Your task to perform on an android device: toggle priority inbox in the gmail app Image 0: 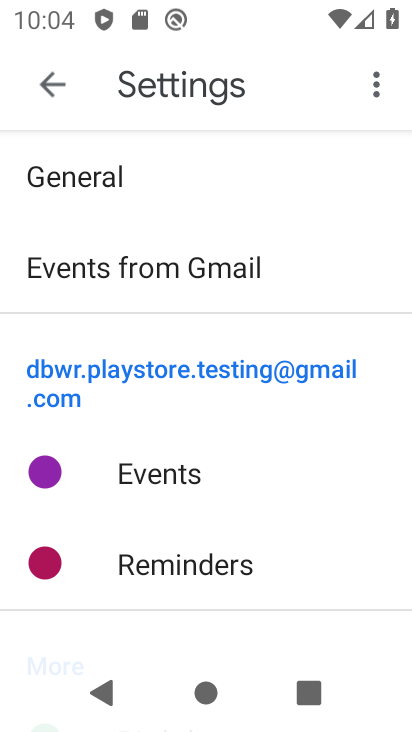
Step 0: press back button
Your task to perform on an android device: toggle priority inbox in the gmail app Image 1: 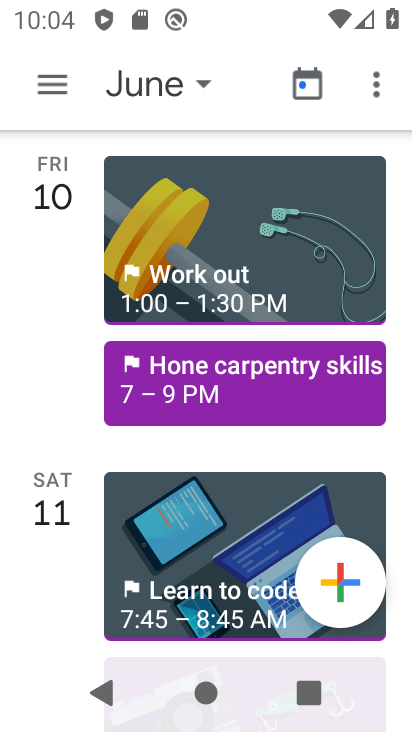
Step 1: press back button
Your task to perform on an android device: toggle priority inbox in the gmail app Image 2: 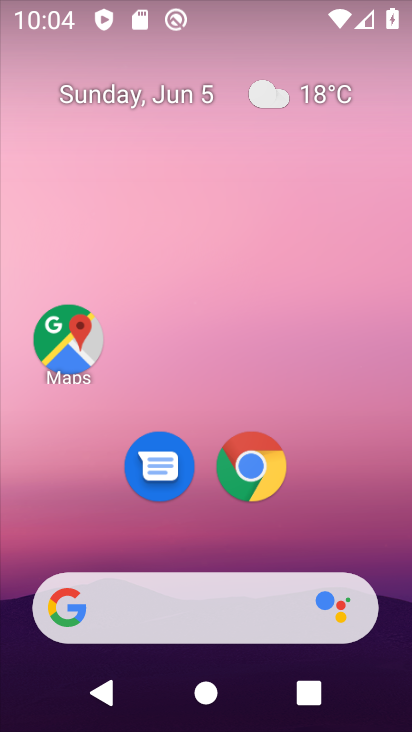
Step 2: drag from (337, 491) to (257, 34)
Your task to perform on an android device: toggle priority inbox in the gmail app Image 3: 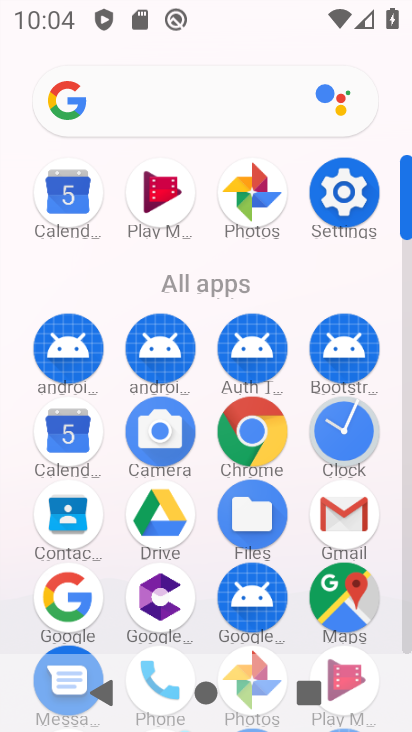
Step 3: drag from (302, 292) to (274, 92)
Your task to perform on an android device: toggle priority inbox in the gmail app Image 4: 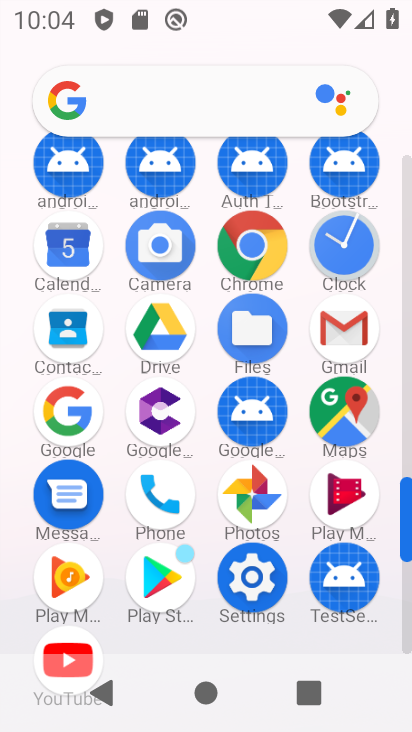
Step 4: click (344, 330)
Your task to perform on an android device: toggle priority inbox in the gmail app Image 5: 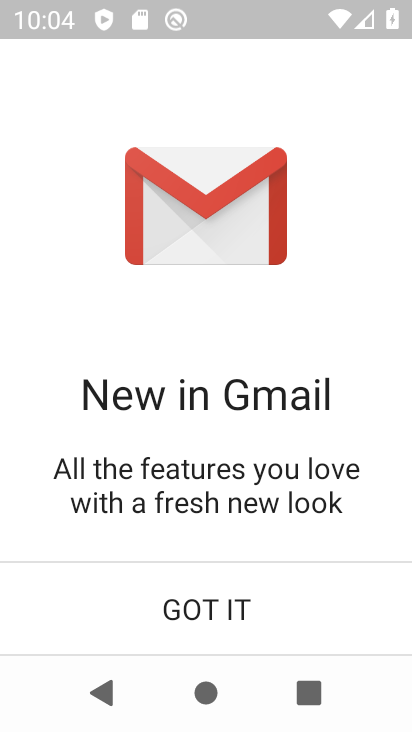
Step 5: click (218, 608)
Your task to perform on an android device: toggle priority inbox in the gmail app Image 6: 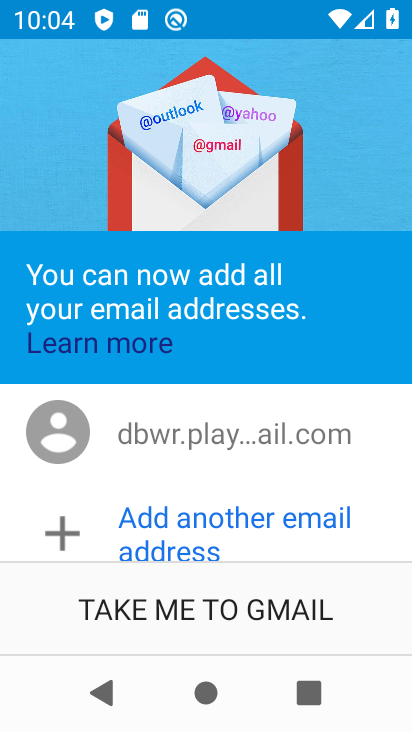
Step 6: click (218, 608)
Your task to perform on an android device: toggle priority inbox in the gmail app Image 7: 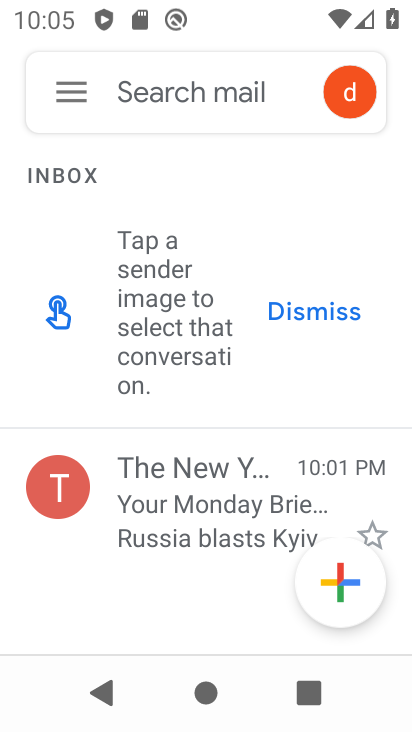
Step 7: click (66, 100)
Your task to perform on an android device: toggle priority inbox in the gmail app Image 8: 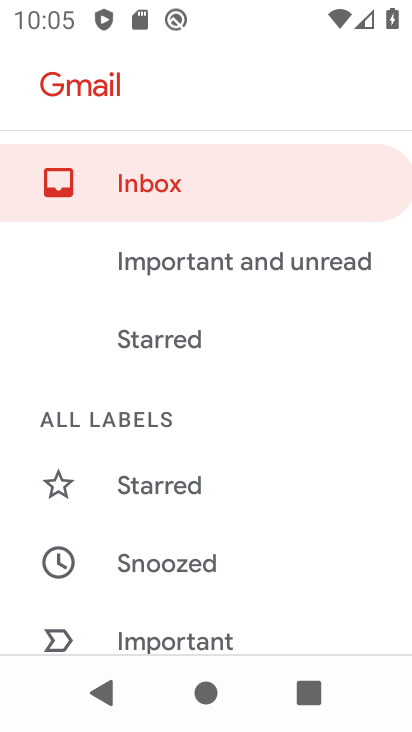
Step 8: drag from (197, 388) to (233, 299)
Your task to perform on an android device: toggle priority inbox in the gmail app Image 9: 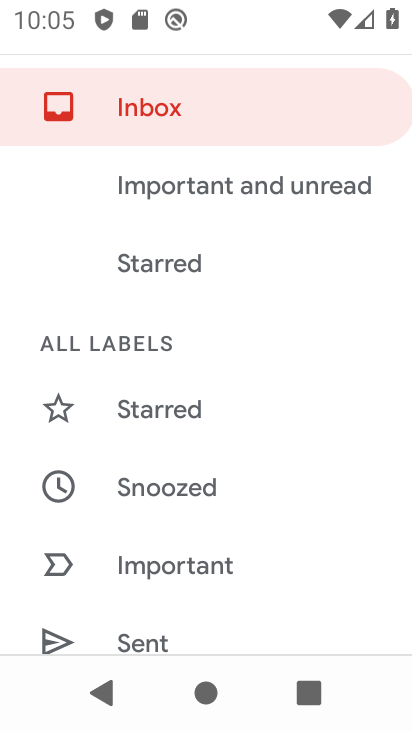
Step 9: drag from (227, 458) to (261, 349)
Your task to perform on an android device: toggle priority inbox in the gmail app Image 10: 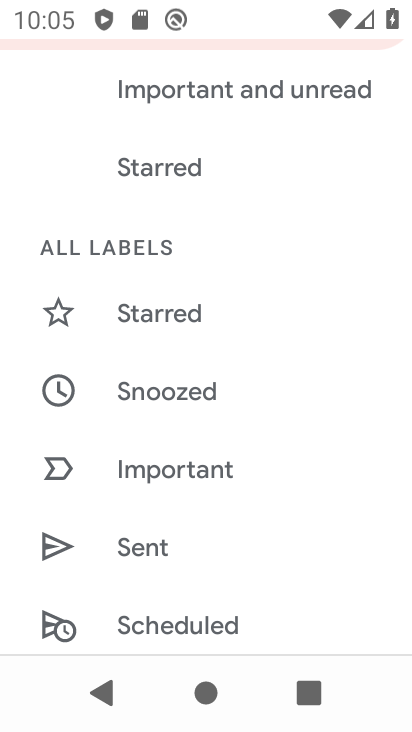
Step 10: drag from (215, 546) to (222, 423)
Your task to perform on an android device: toggle priority inbox in the gmail app Image 11: 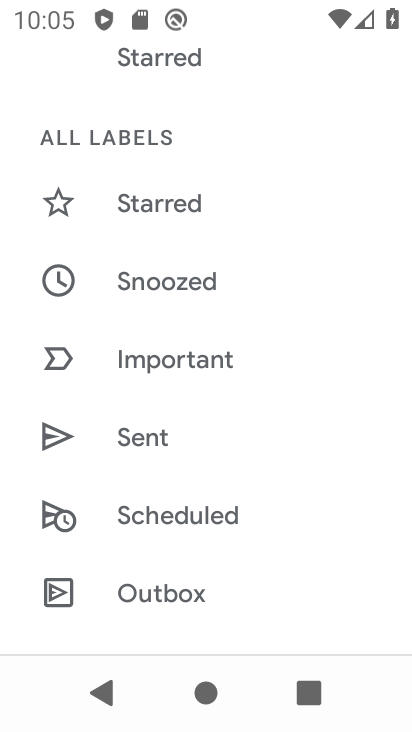
Step 11: drag from (198, 486) to (235, 357)
Your task to perform on an android device: toggle priority inbox in the gmail app Image 12: 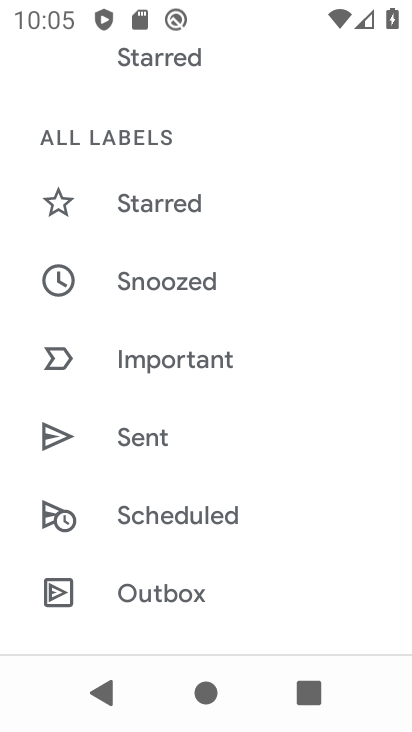
Step 12: drag from (185, 482) to (258, 333)
Your task to perform on an android device: toggle priority inbox in the gmail app Image 13: 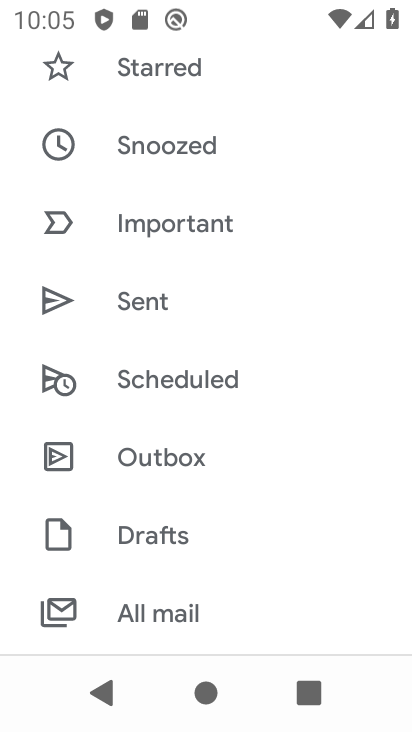
Step 13: drag from (177, 498) to (249, 390)
Your task to perform on an android device: toggle priority inbox in the gmail app Image 14: 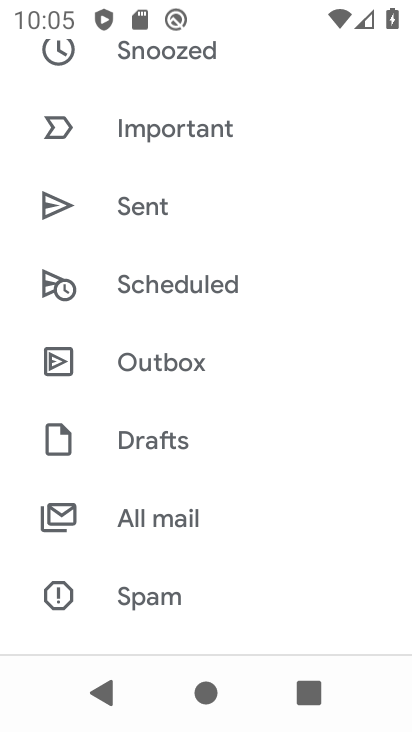
Step 14: drag from (165, 560) to (296, 372)
Your task to perform on an android device: toggle priority inbox in the gmail app Image 15: 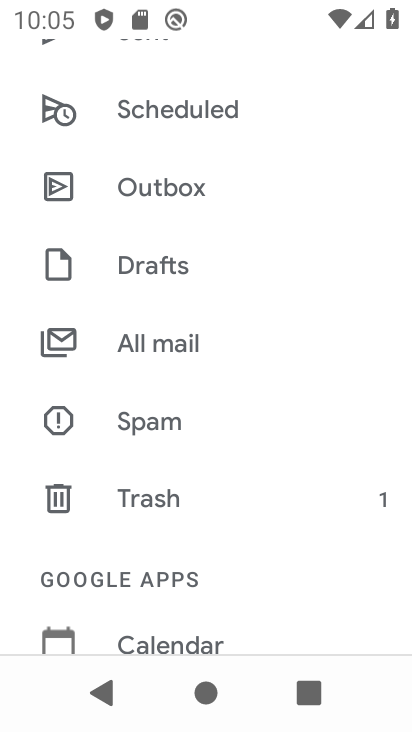
Step 15: drag from (157, 542) to (255, 435)
Your task to perform on an android device: toggle priority inbox in the gmail app Image 16: 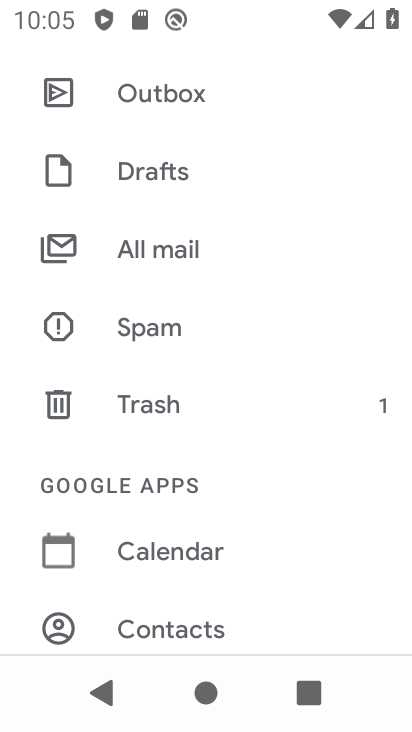
Step 16: drag from (152, 593) to (255, 474)
Your task to perform on an android device: toggle priority inbox in the gmail app Image 17: 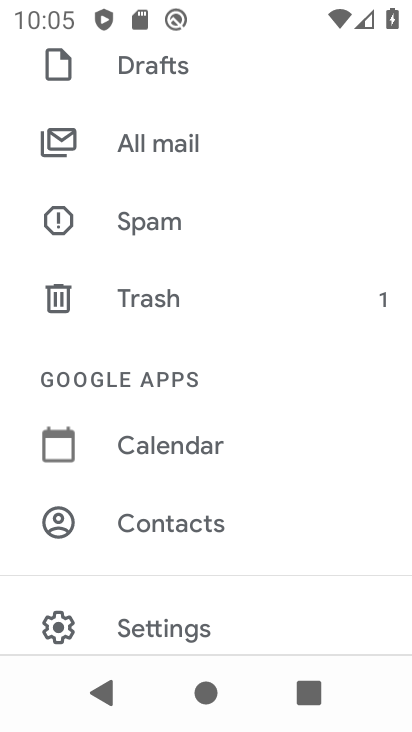
Step 17: drag from (152, 600) to (243, 500)
Your task to perform on an android device: toggle priority inbox in the gmail app Image 18: 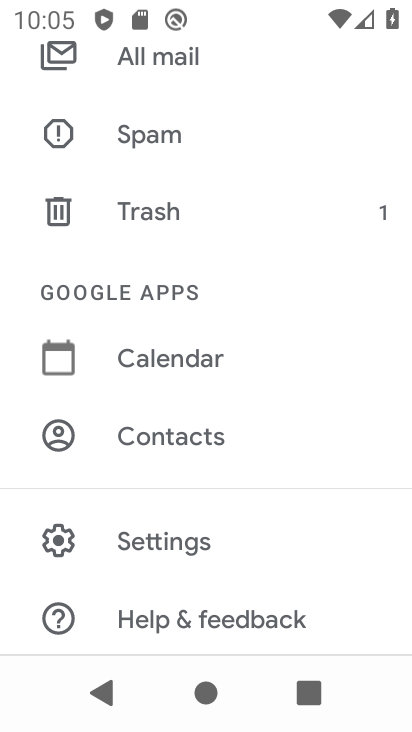
Step 18: click (208, 533)
Your task to perform on an android device: toggle priority inbox in the gmail app Image 19: 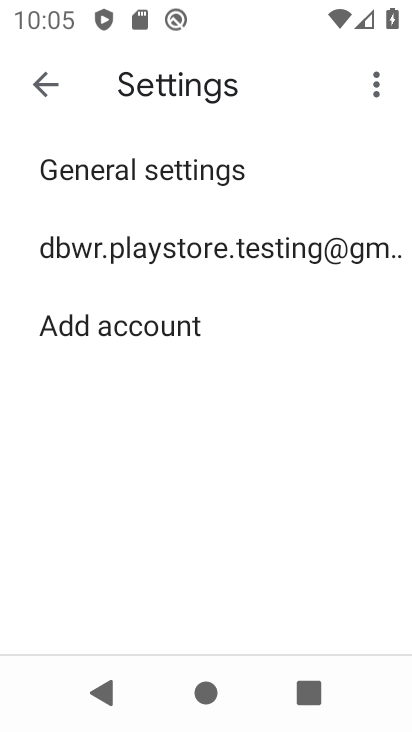
Step 19: click (262, 253)
Your task to perform on an android device: toggle priority inbox in the gmail app Image 20: 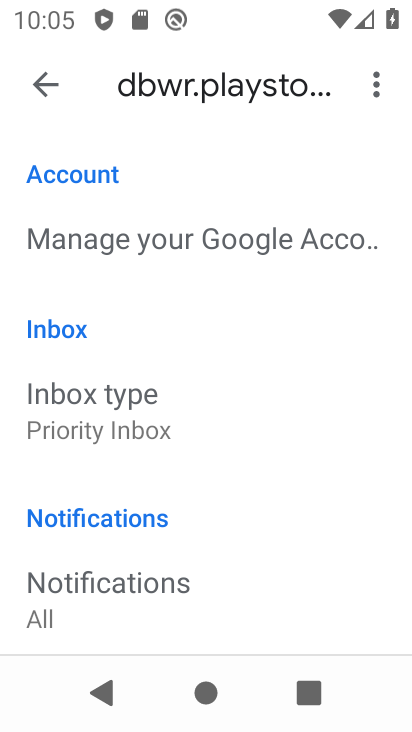
Step 20: click (138, 424)
Your task to perform on an android device: toggle priority inbox in the gmail app Image 21: 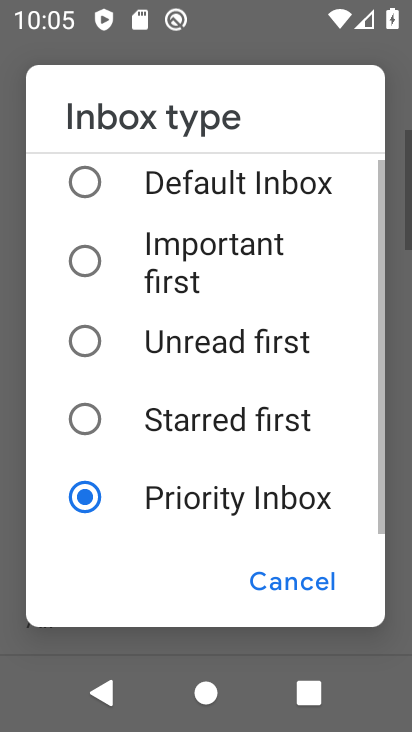
Step 21: click (138, 424)
Your task to perform on an android device: toggle priority inbox in the gmail app Image 22: 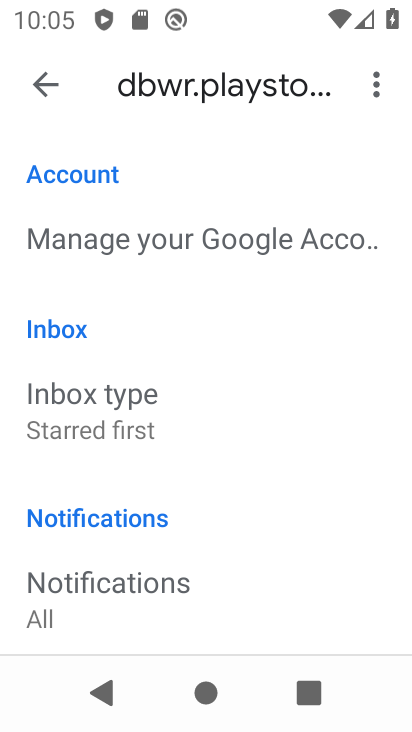
Step 22: task complete